Your task to perform on an android device: toggle data saver in the chrome app Image 0: 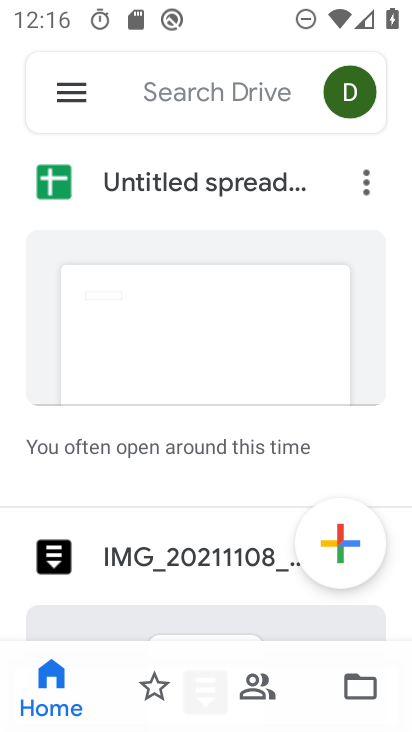
Step 0: press home button
Your task to perform on an android device: toggle data saver in the chrome app Image 1: 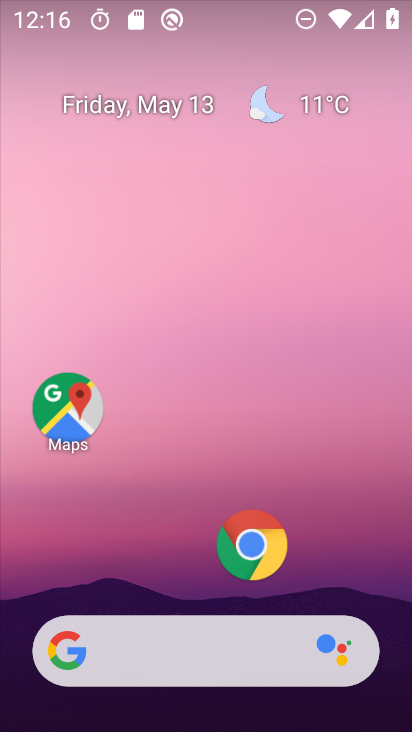
Step 1: click (243, 539)
Your task to perform on an android device: toggle data saver in the chrome app Image 2: 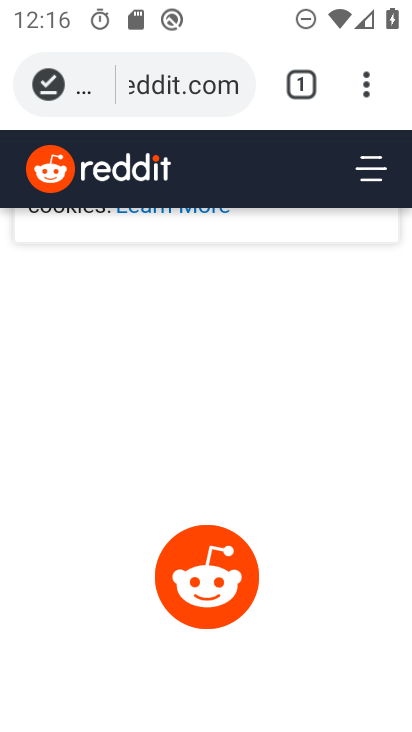
Step 2: click (362, 80)
Your task to perform on an android device: toggle data saver in the chrome app Image 3: 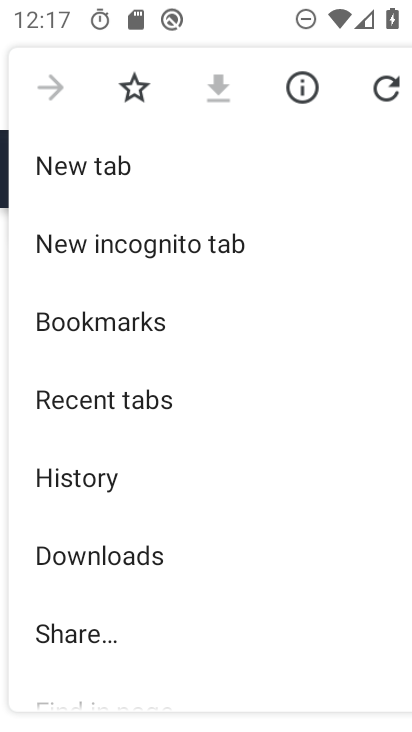
Step 3: drag from (165, 615) to (217, 134)
Your task to perform on an android device: toggle data saver in the chrome app Image 4: 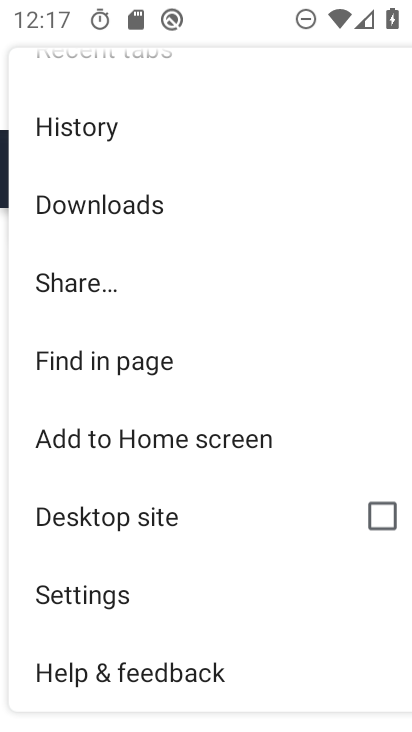
Step 4: click (135, 590)
Your task to perform on an android device: toggle data saver in the chrome app Image 5: 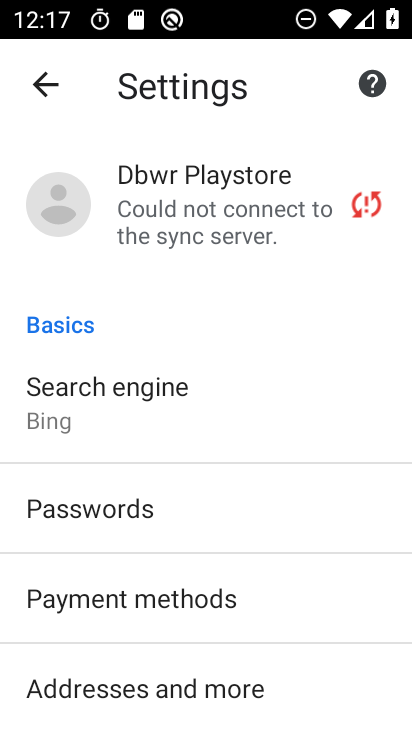
Step 5: drag from (277, 686) to (275, 186)
Your task to perform on an android device: toggle data saver in the chrome app Image 6: 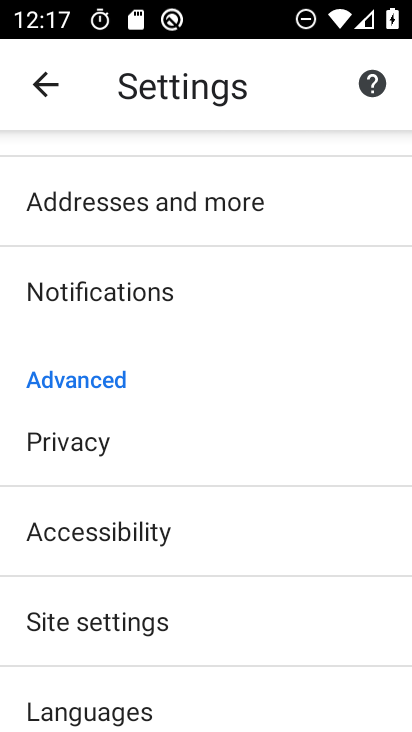
Step 6: drag from (209, 675) to (222, 232)
Your task to perform on an android device: toggle data saver in the chrome app Image 7: 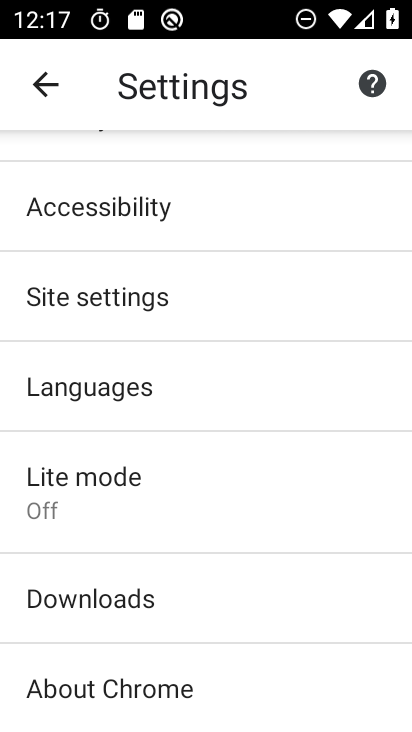
Step 7: click (109, 507)
Your task to perform on an android device: toggle data saver in the chrome app Image 8: 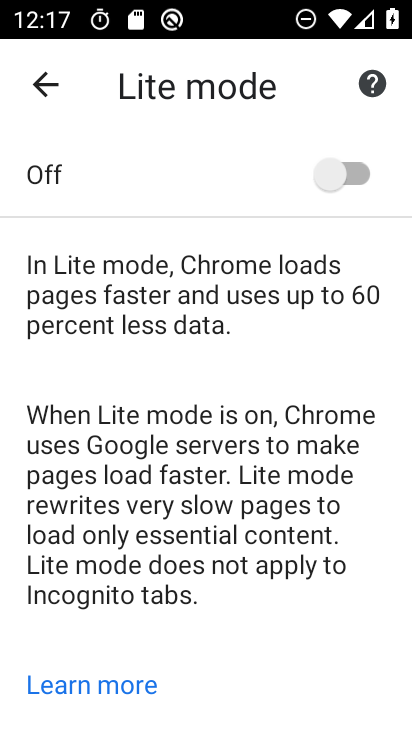
Step 8: click (358, 164)
Your task to perform on an android device: toggle data saver in the chrome app Image 9: 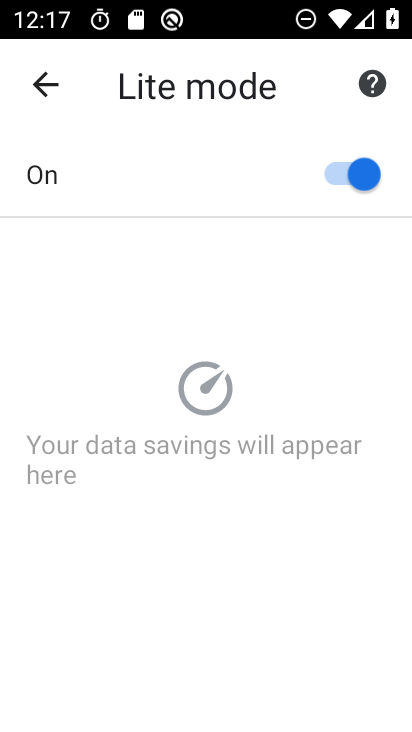
Step 9: task complete